Your task to perform on an android device: Turn off the flashlight Image 0: 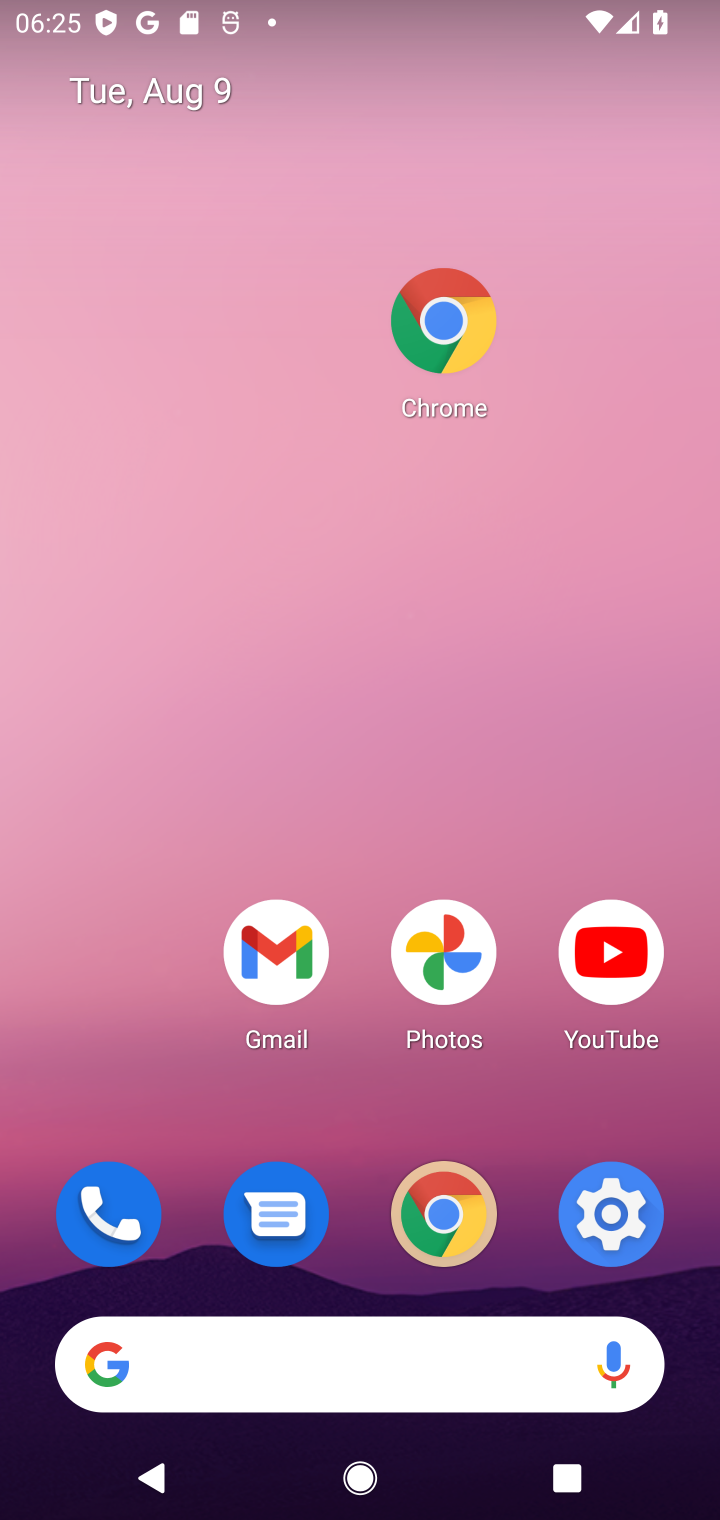
Step 0: click (616, 1235)
Your task to perform on an android device: Turn off the flashlight Image 1: 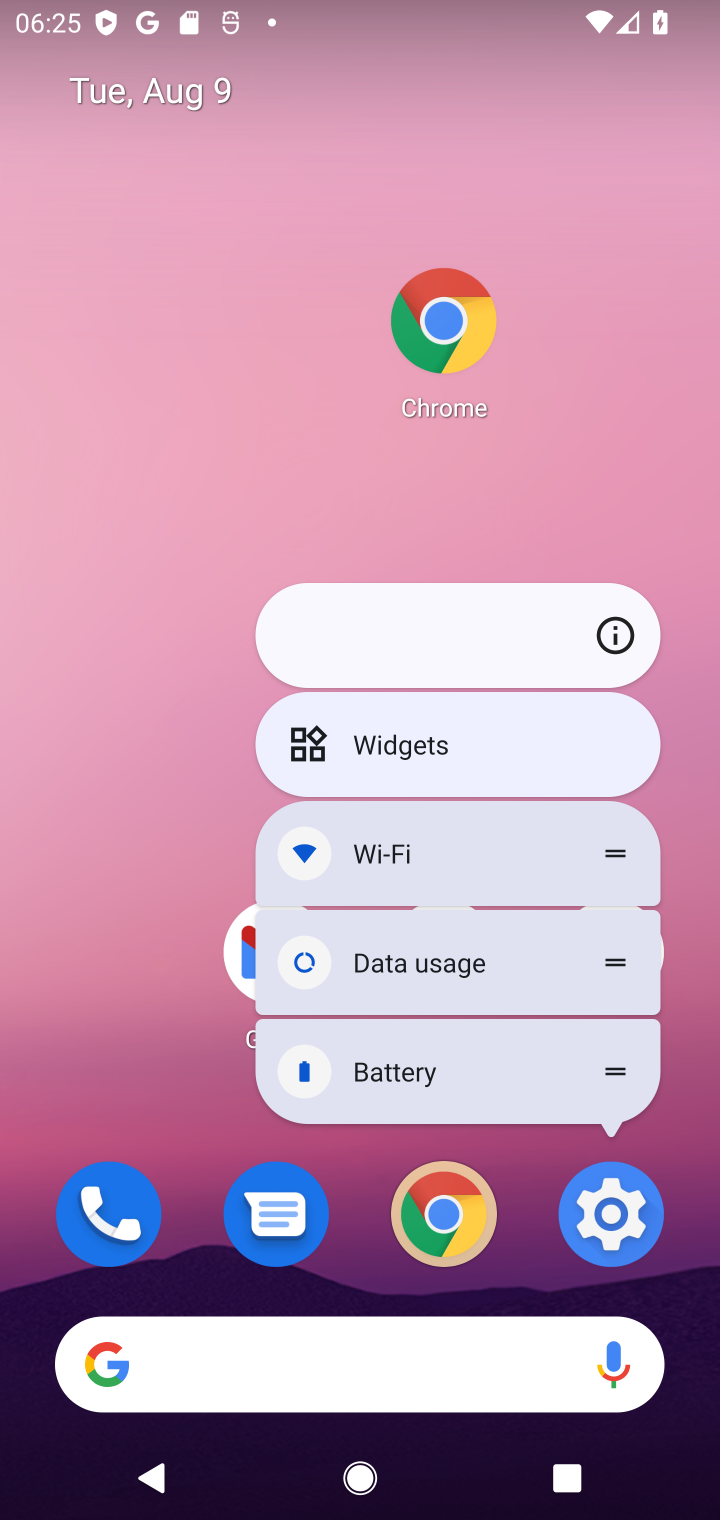
Step 1: click (615, 1230)
Your task to perform on an android device: Turn off the flashlight Image 2: 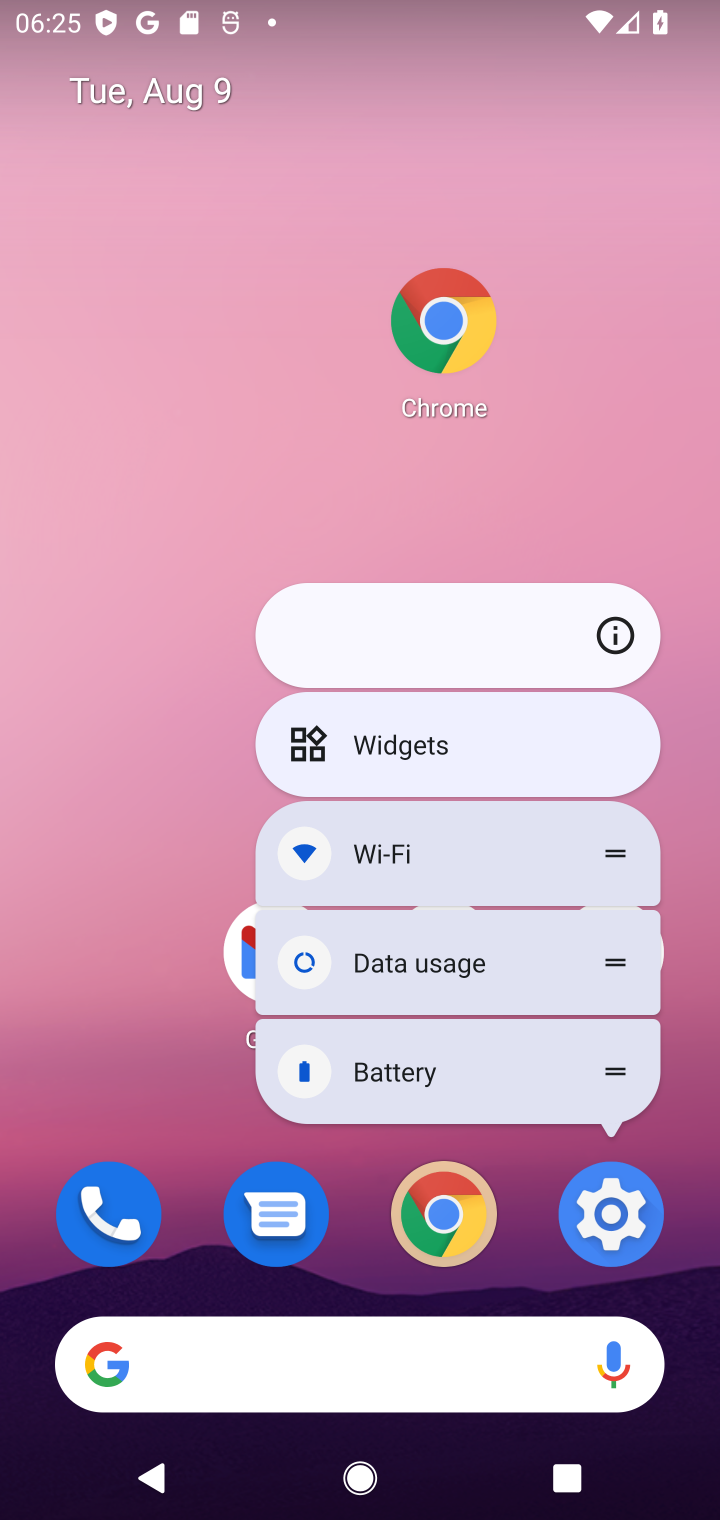
Step 2: click (609, 1216)
Your task to perform on an android device: Turn off the flashlight Image 3: 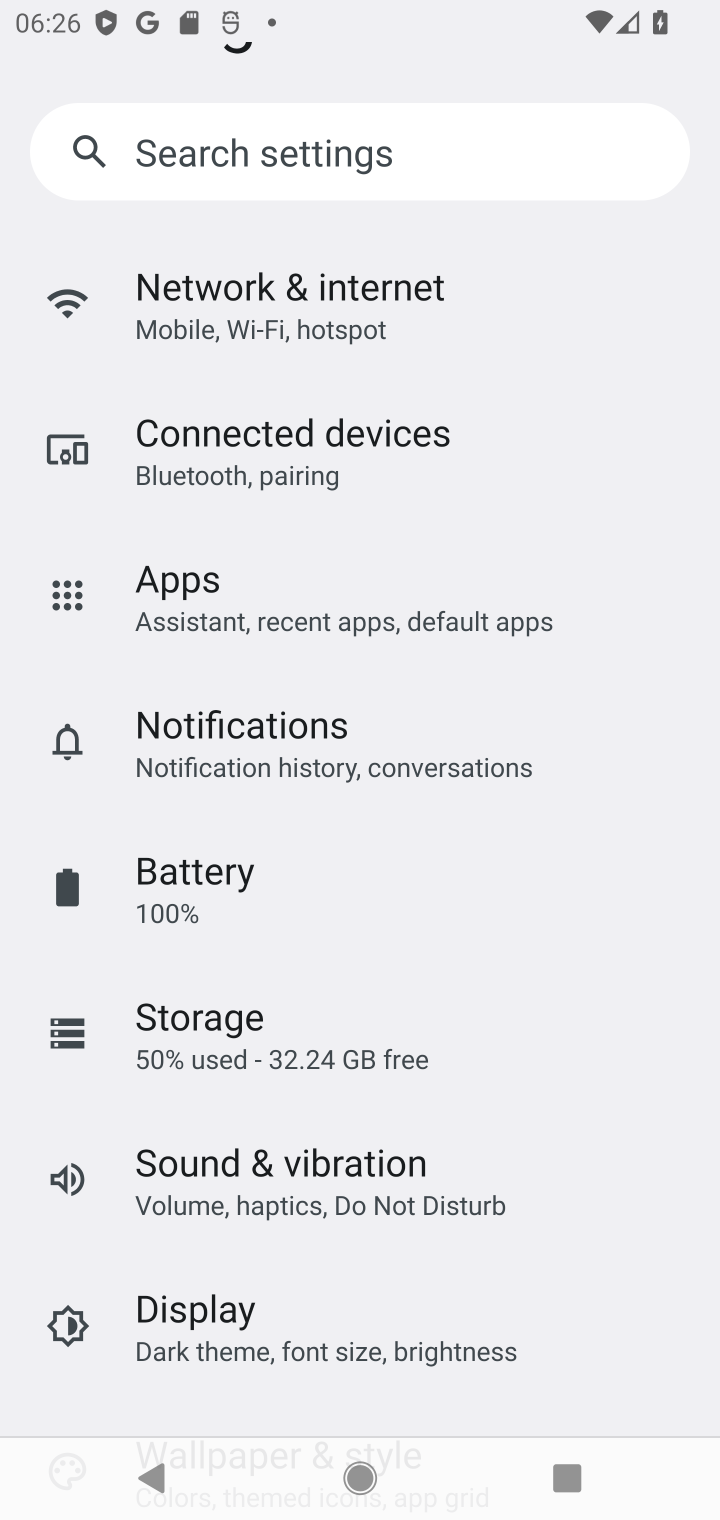
Step 3: click (229, 149)
Your task to perform on an android device: Turn off the flashlight Image 4: 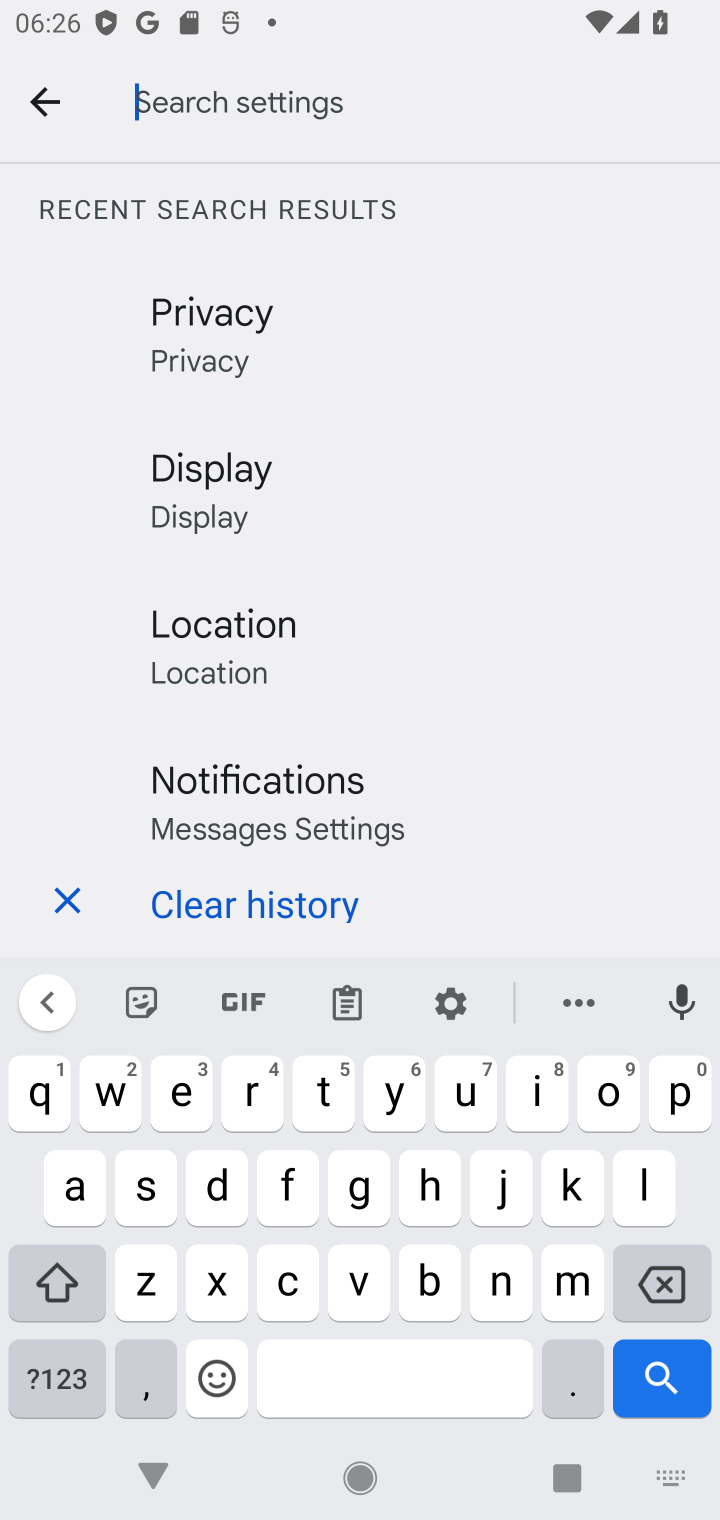
Step 4: click (293, 1193)
Your task to perform on an android device: Turn off the flashlight Image 5: 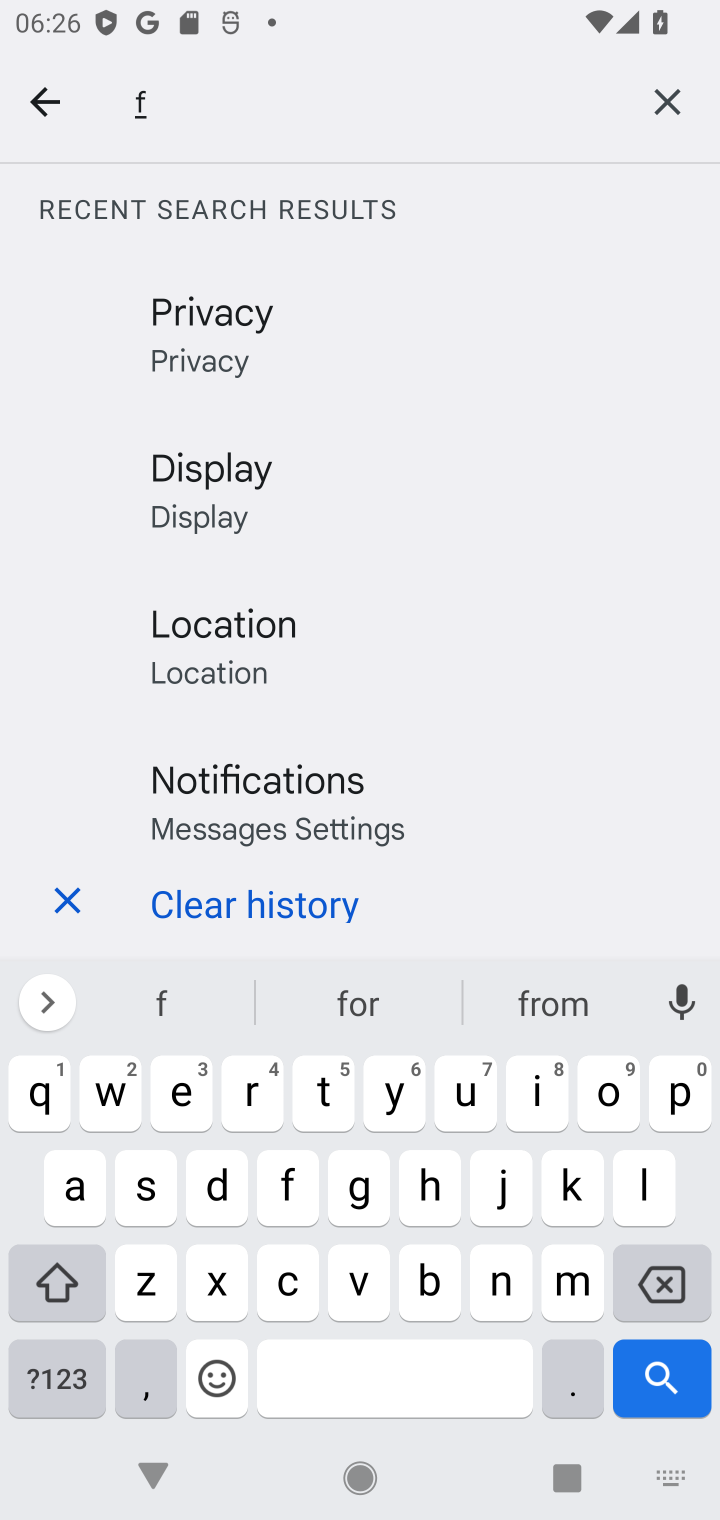
Step 5: click (648, 1185)
Your task to perform on an android device: Turn off the flashlight Image 6: 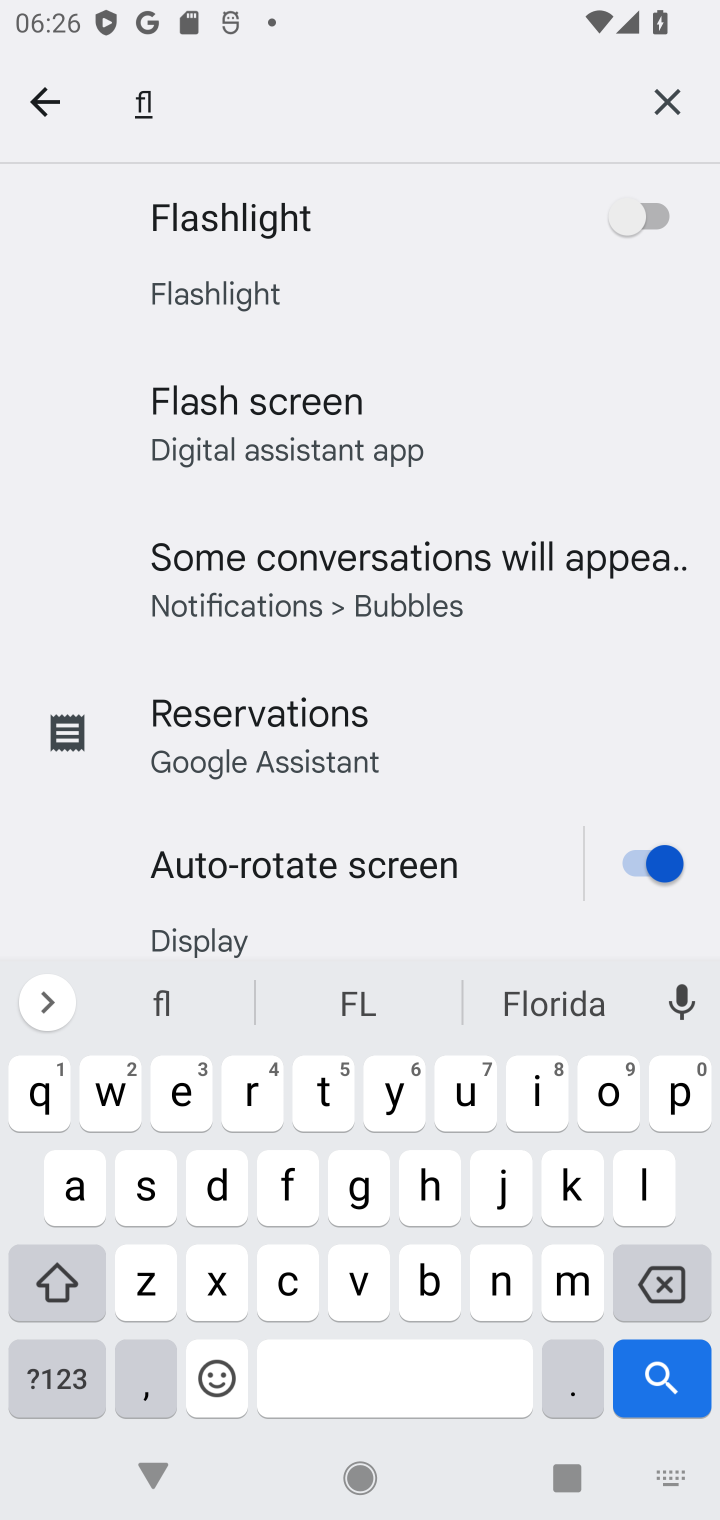
Step 6: click (190, 236)
Your task to perform on an android device: Turn off the flashlight Image 7: 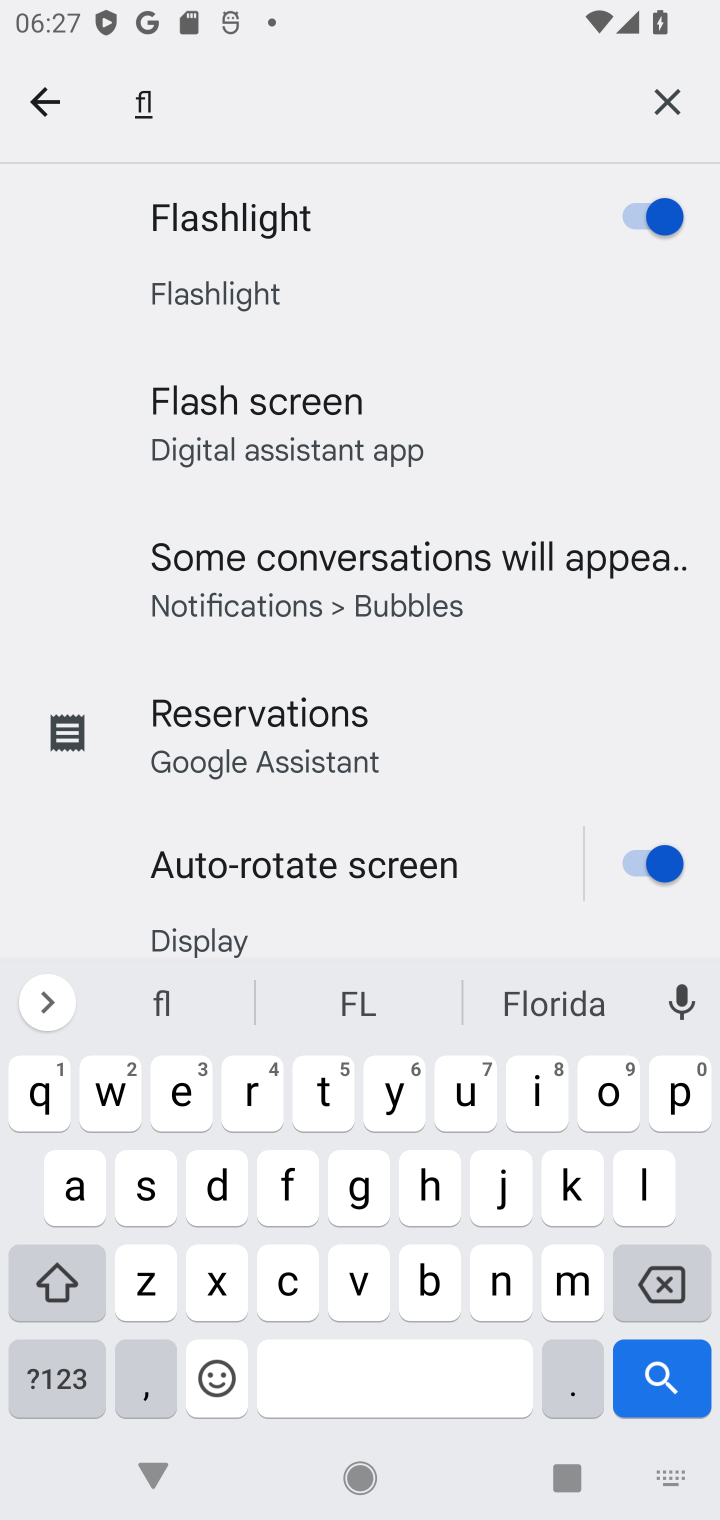
Step 7: click (229, 223)
Your task to perform on an android device: Turn off the flashlight Image 8: 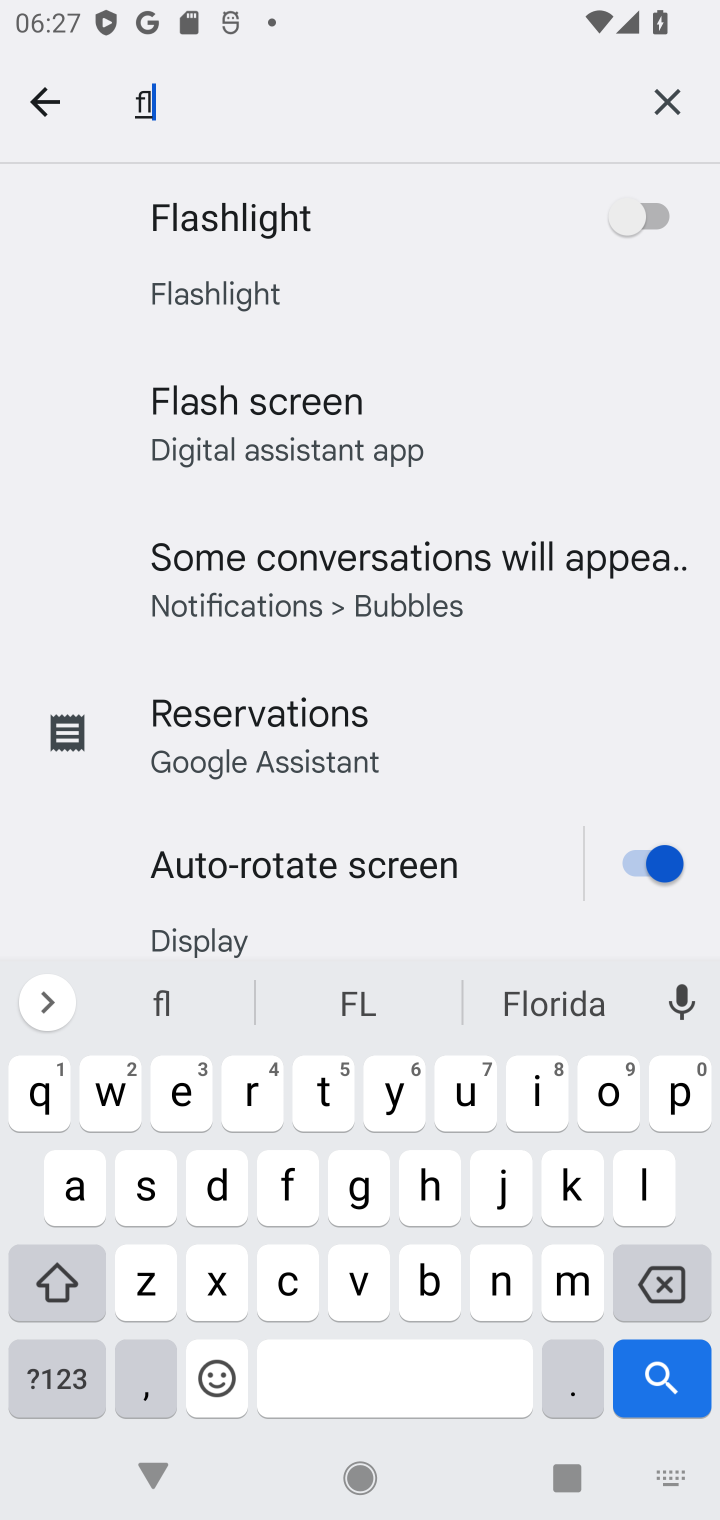
Step 8: click (211, 244)
Your task to perform on an android device: Turn off the flashlight Image 9: 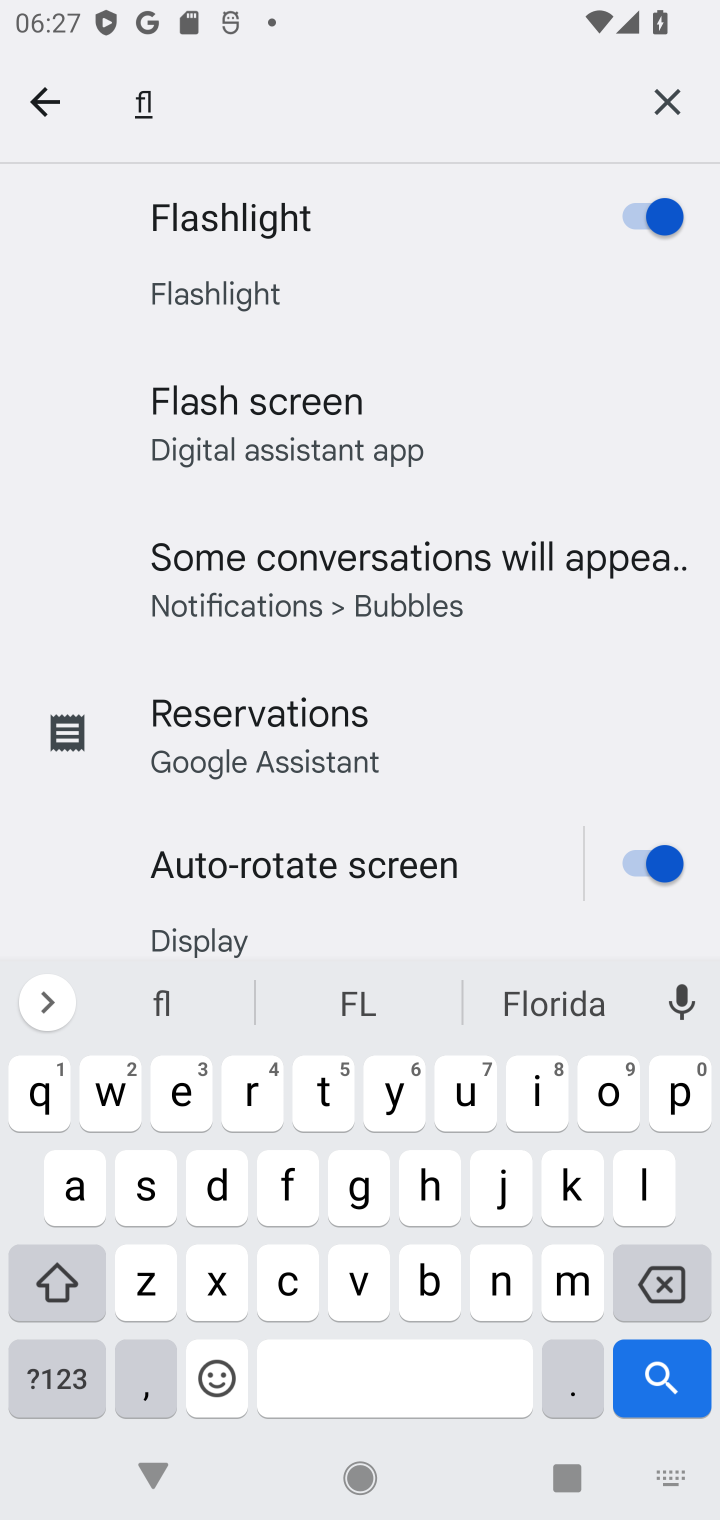
Step 9: click (255, 266)
Your task to perform on an android device: Turn off the flashlight Image 10: 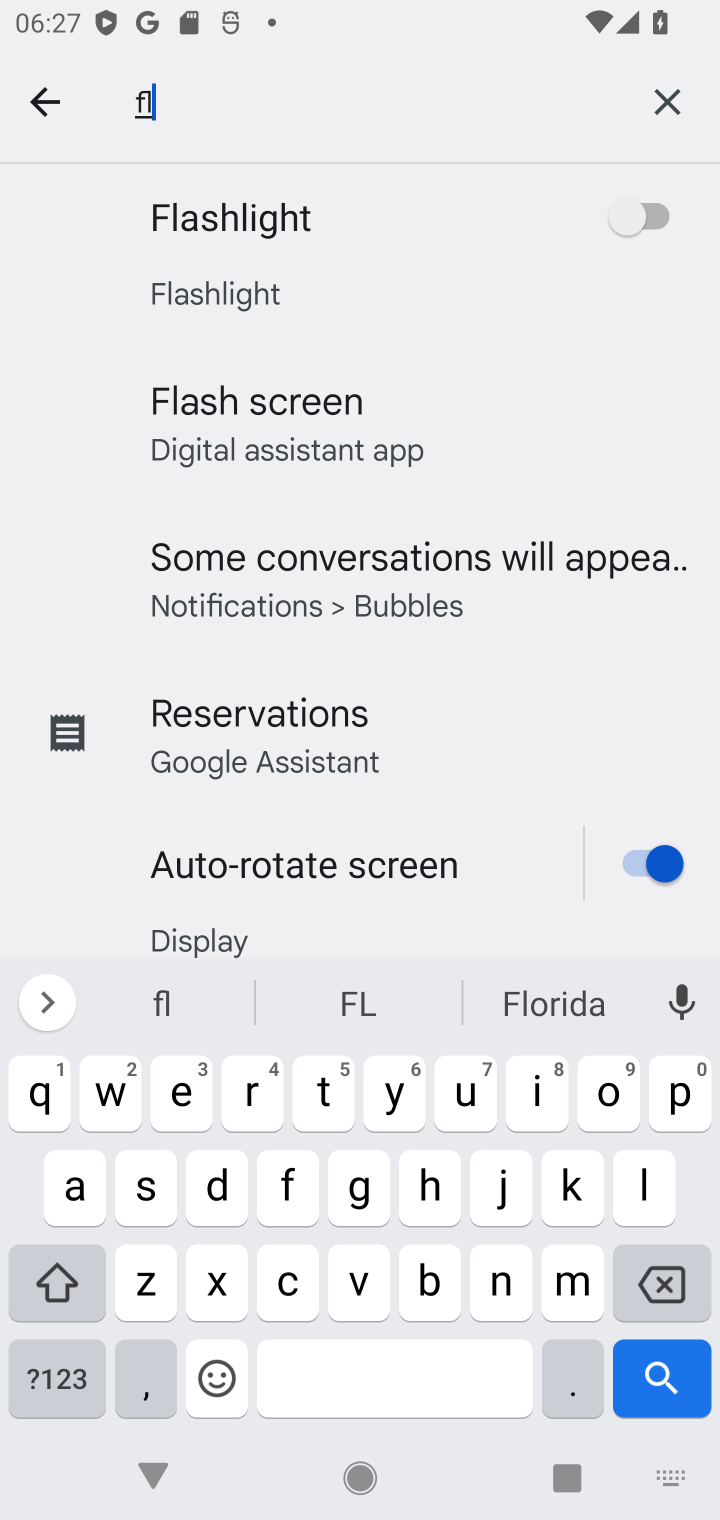
Step 10: task complete